Your task to perform on an android device: toggle javascript in the chrome app Image 0: 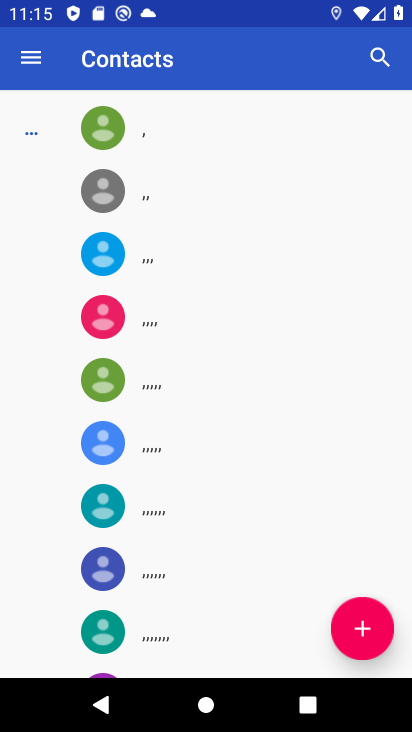
Step 0: press home button
Your task to perform on an android device: toggle javascript in the chrome app Image 1: 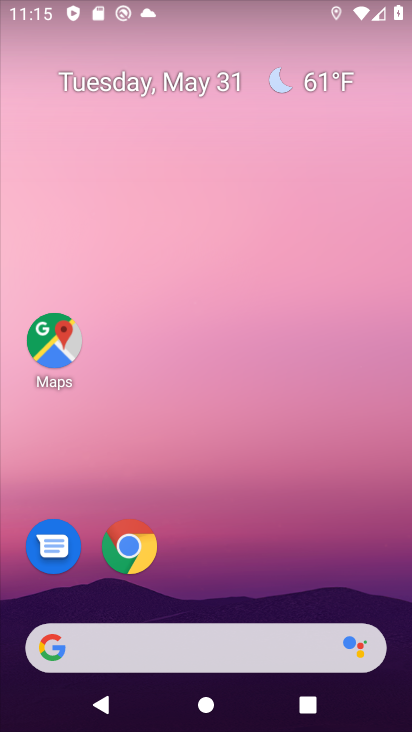
Step 1: click (117, 543)
Your task to perform on an android device: toggle javascript in the chrome app Image 2: 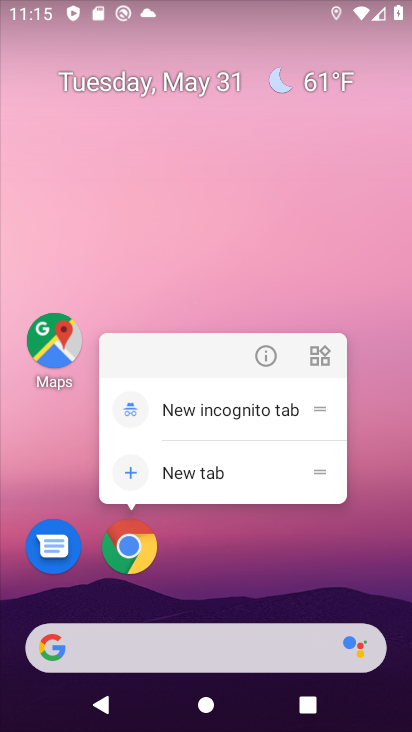
Step 2: click (138, 558)
Your task to perform on an android device: toggle javascript in the chrome app Image 3: 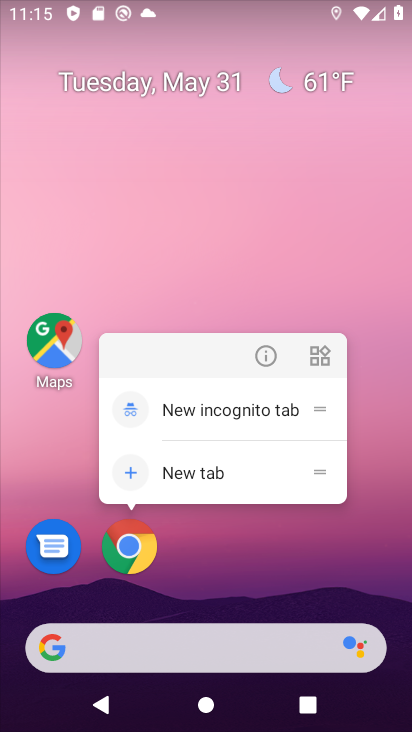
Step 3: click (133, 549)
Your task to perform on an android device: toggle javascript in the chrome app Image 4: 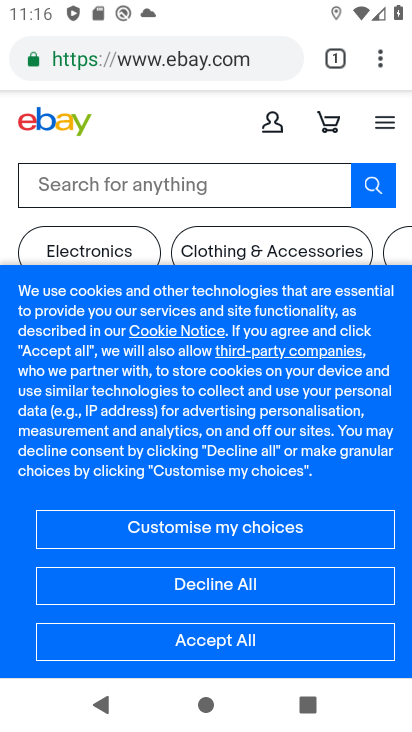
Step 4: click (374, 53)
Your task to perform on an android device: toggle javascript in the chrome app Image 5: 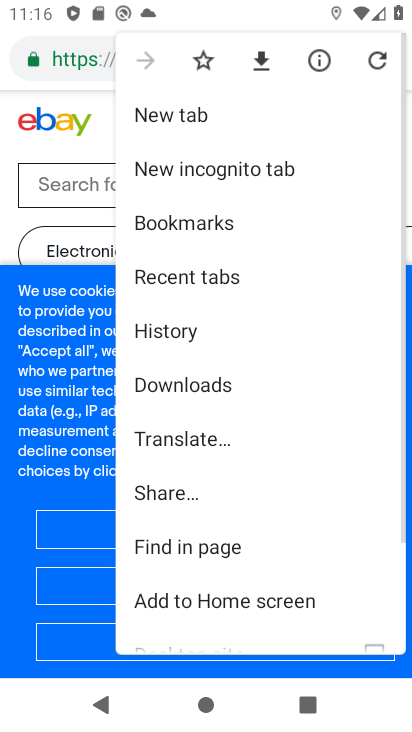
Step 5: drag from (227, 532) to (192, 46)
Your task to perform on an android device: toggle javascript in the chrome app Image 6: 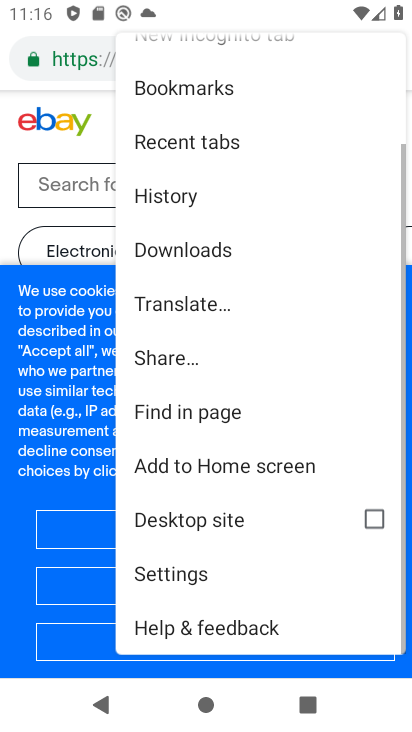
Step 6: click (183, 566)
Your task to perform on an android device: toggle javascript in the chrome app Image 7: 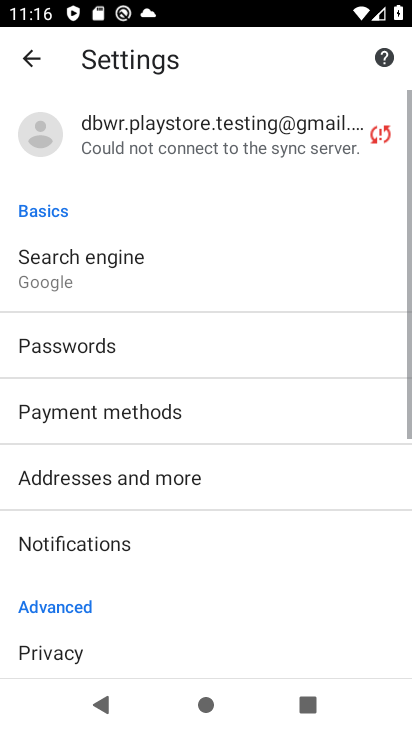
Step 7: drag from (184, 561) to (155, 454)
Your task to perform on an android device: toggle javascript in the chrome app Image 8: 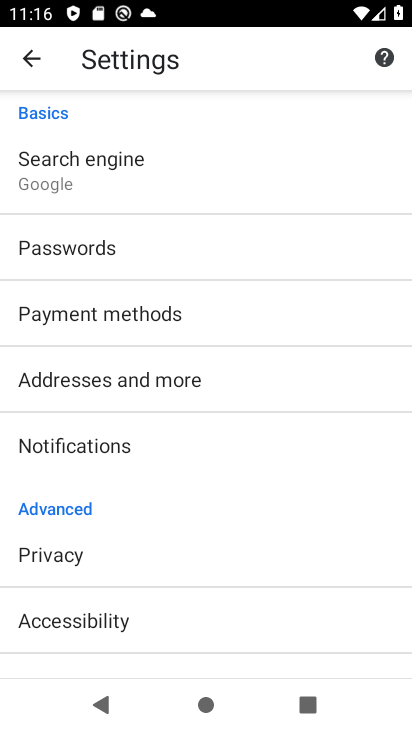
Step 8: drag from (145, 608) to (121, 408)
Your task to perform on an android device: toggle javascript in the chrome app Image 9: 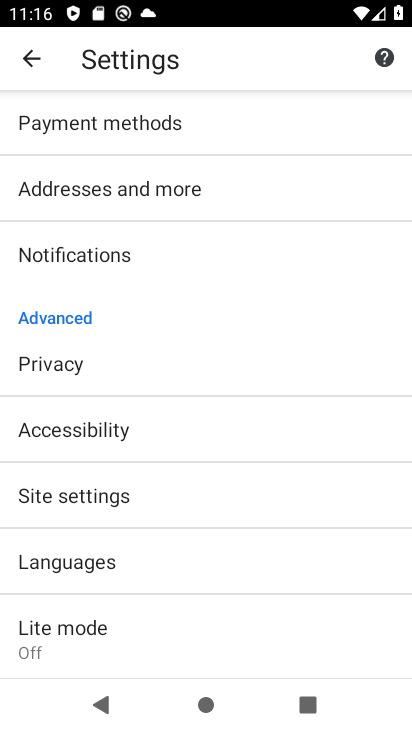
Step 9: click (85, 507)
Your task to perform on an android device: toggle javascript in the chrome app Image 10: 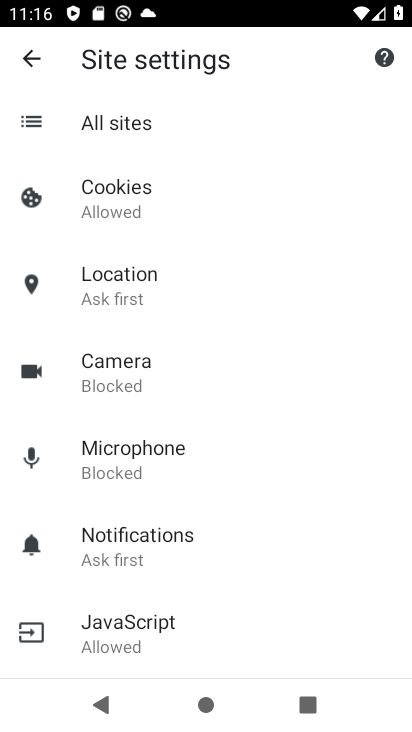
Step 10: click (154, 620)
Your task to perform on an android device: toggle javascript in the chrome app Image 11: 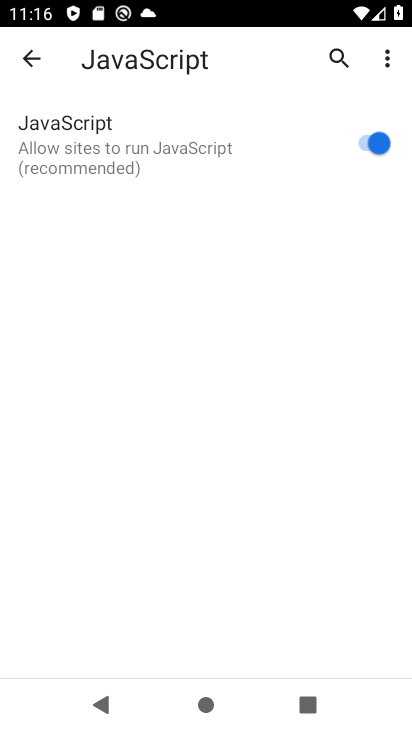
Step 11: click (366, 153)
Your task to perform on an android device: toggle javascript in the chrome app Image 12: 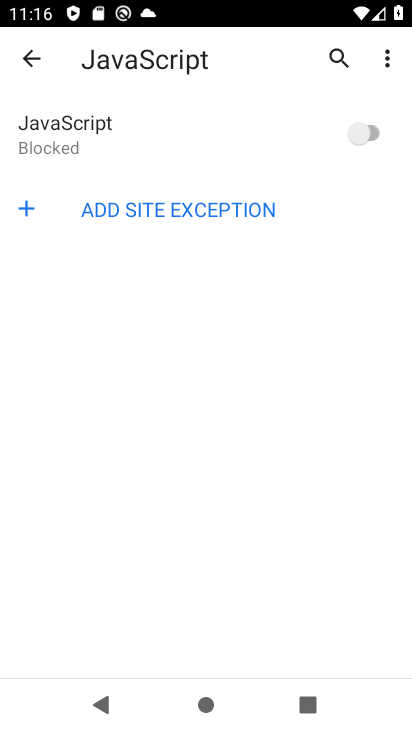
Step 12: task complete